Your task to perform on an android device: Reply to the last email I received with 'I used to have a handle on life, but then it broke.' and CC tau.benjaminbren.1654798856749@gmail.com Image 0: 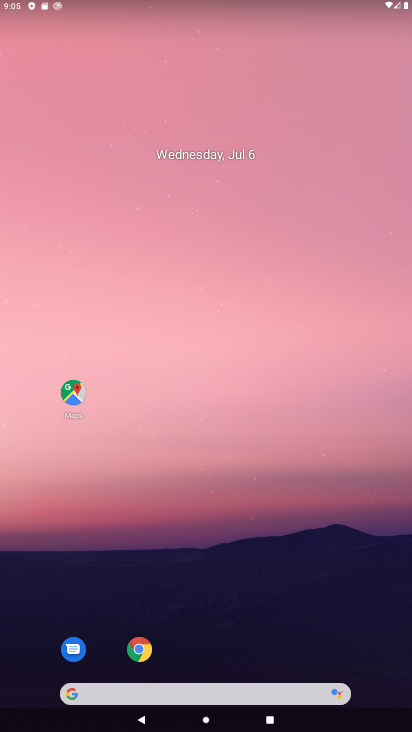
Step 0: drag from (232, 348) to (228, 19)
Your task to perform on an android device: Reply to the last email I received with 'I used to have a handle on life, but then it broke.' and CC tau.benjaminbren.1654798856749@gmail.com Image 1: 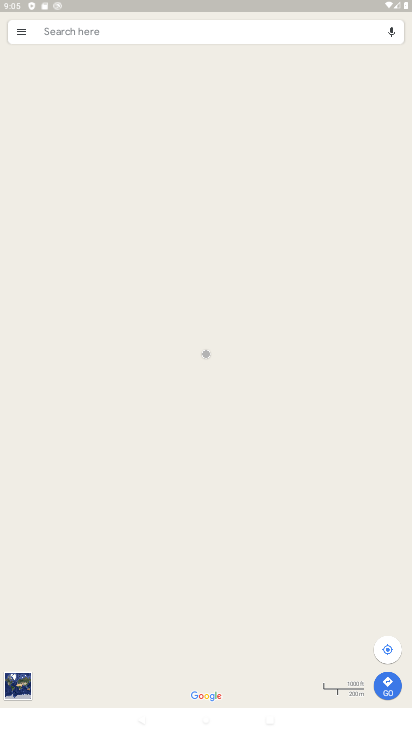
Step 1: press home button
Your task to perform on an android device: Reply to the last email I received with 'I used to have a handle on life, but then it broke.' and CC tau.benjaminbren.1654798856749@gmail.com Image 2: 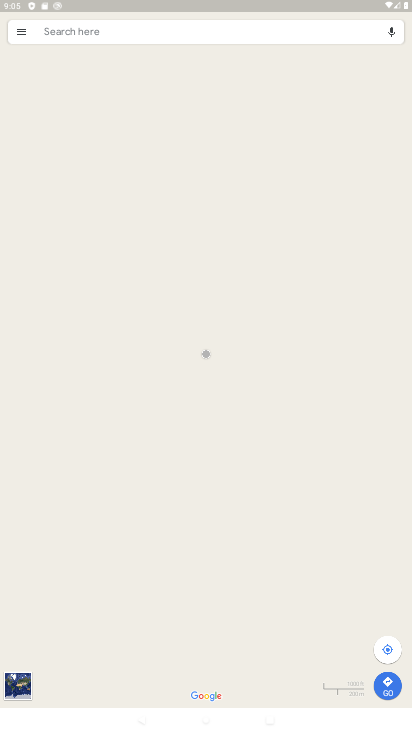
Step 2: drag from (206, 155) to (235, 24)
Your task to perform on an android device: Reply to the last email I received with 'I used to have a handle on life, but then it broke.' and CC tau.benjaminbren.1654798856749@gmail.com Image 3: 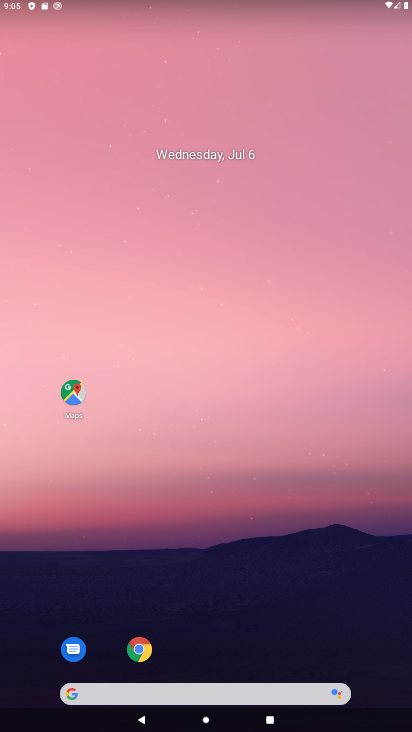
Step 3: drag from (211, 539) to (214, 0)
Your task to perform on an android device: Reply to the last email I received with 'I used to have a handle on life, but then it broke.' and CC tau.benjaminbren.1654798856749@gmail.com Image 4: 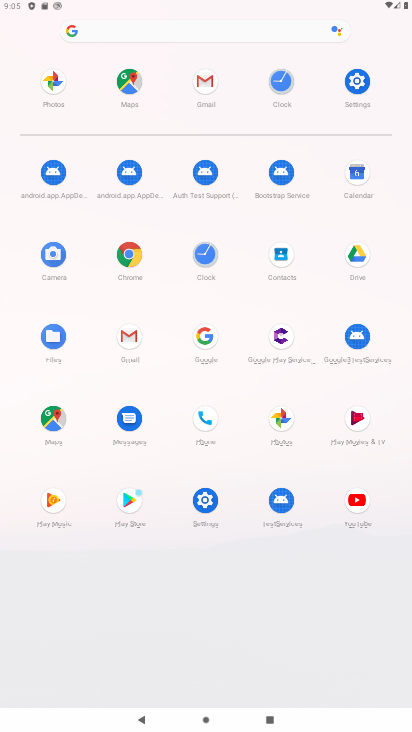
Step 4: click (216, 85)
Your task to perform on an android device: Reply to the last email I received with 'I used to have a handle on life, but then it broke.' and CC tau.benjaminbren.1654798856749@gmail.com Image 5: 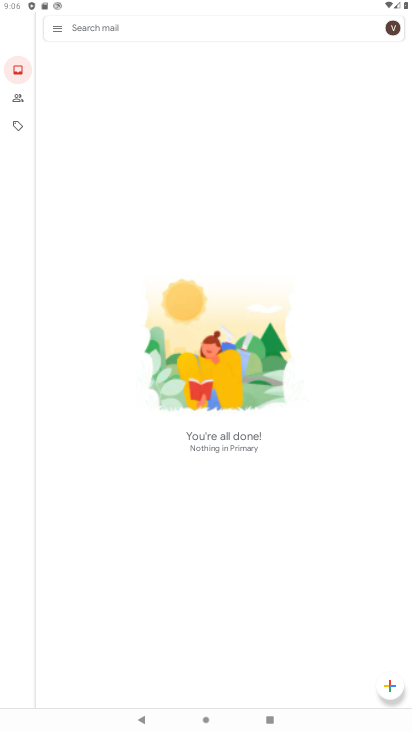
Step 5: task complete